Your task to perform on an android device: open wifi settings Image 0: 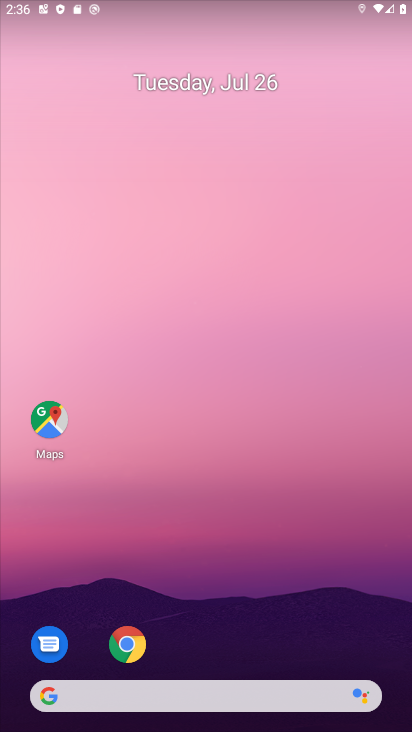
Step 0: press home button
Your task to perform on an android device: open wifi settings Image 1: 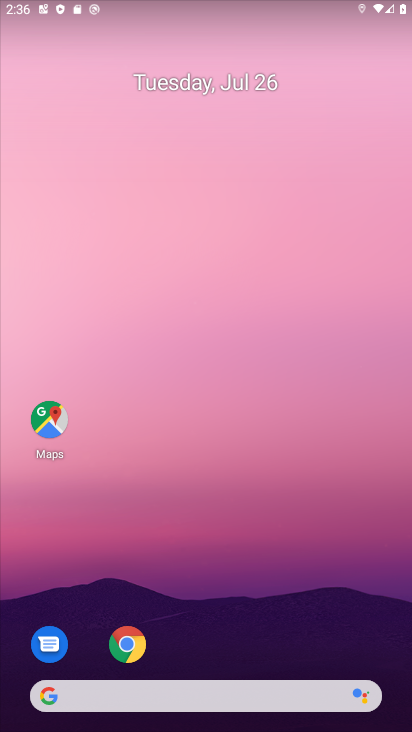
Step 1: drag from (294, 571) to (329, 91)
Your task to perform on an android device: open wifi settings Image 2: 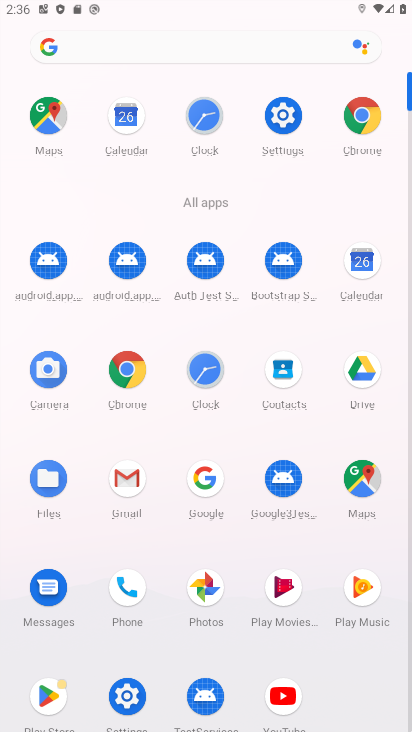
Step 2: click (278, 125)
Your task to perform on an android device: open wifi settings Image 3: 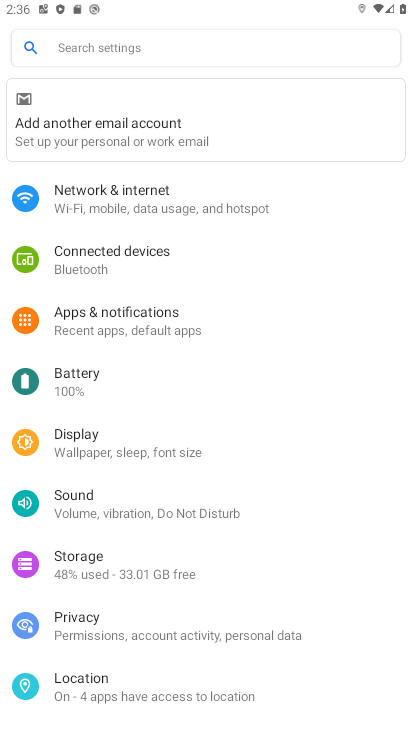
Step 3: click (102, 188)
Your task to perform on an android device: open wifi settings Image 4: 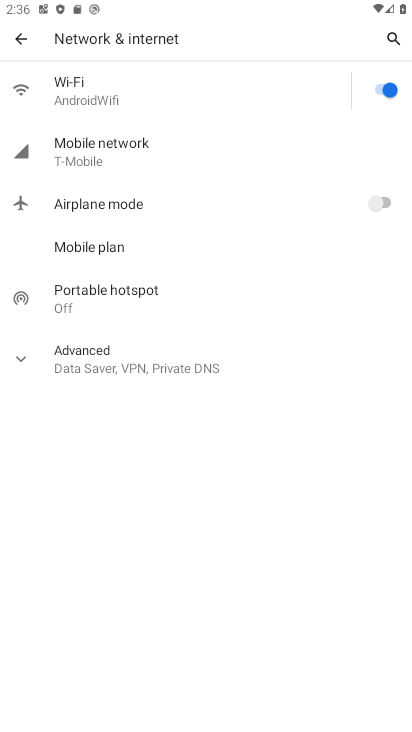
Step 4: task complete